Your task to perform on an android device: add a contact Image 0: 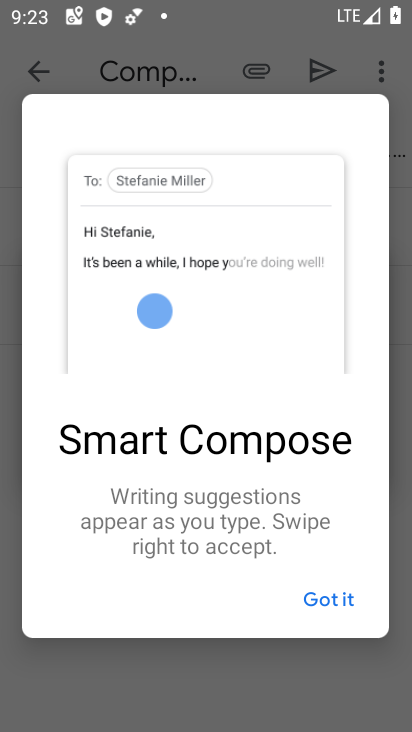
Step 0: press home button
Your task to perform on an android device: add a contact Image 1: 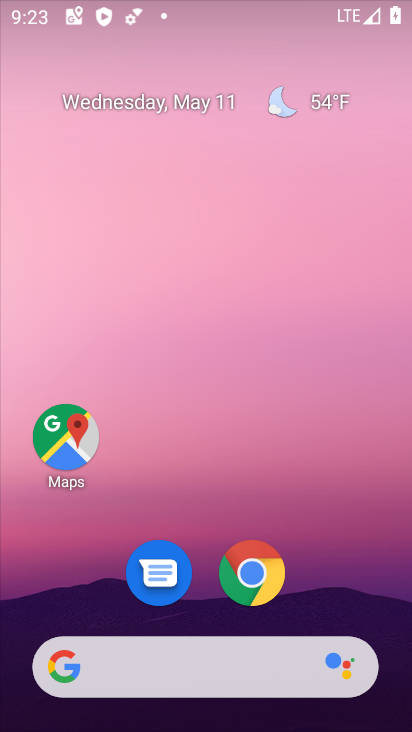
Step 1: drag from (254, 683) to (295, 73)
Your task to perform on an android device: add a contact Image 2: 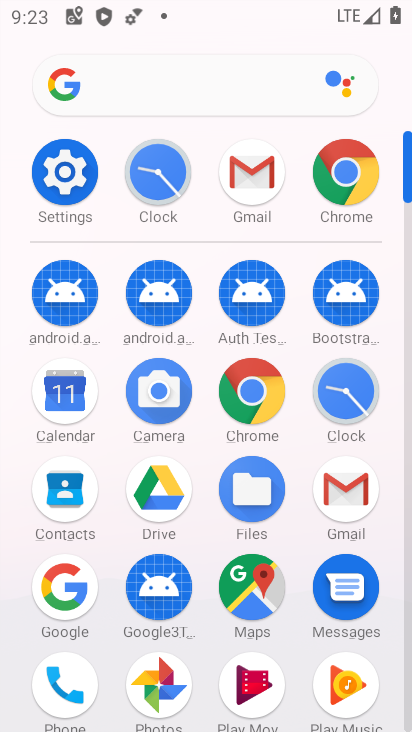
Step 2: click (88, 491)
Your task to perform on an android device: add a contact Image 3: 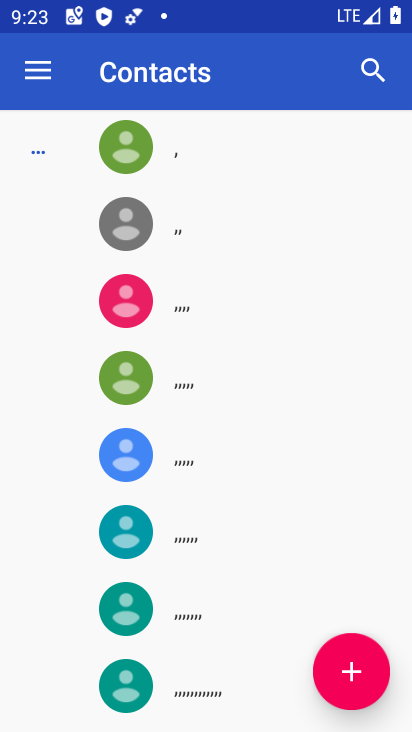
Step 3: click (335, 686)
Your task to perform on an android device: add a contact Image 4: 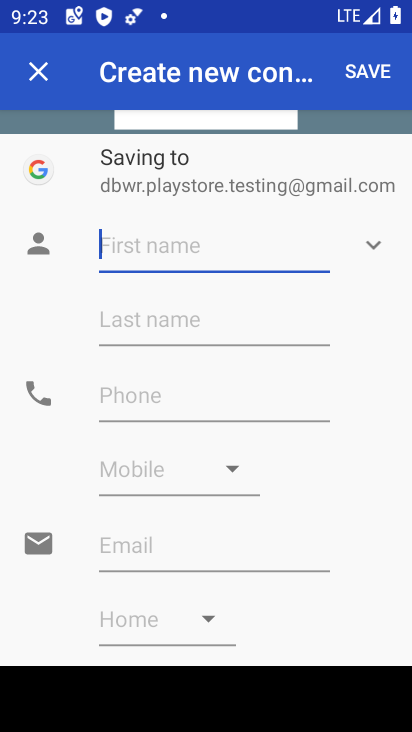
Step 4: type "jhgyujhnj"
Your task to perform on an android device: add a contact Image 5: 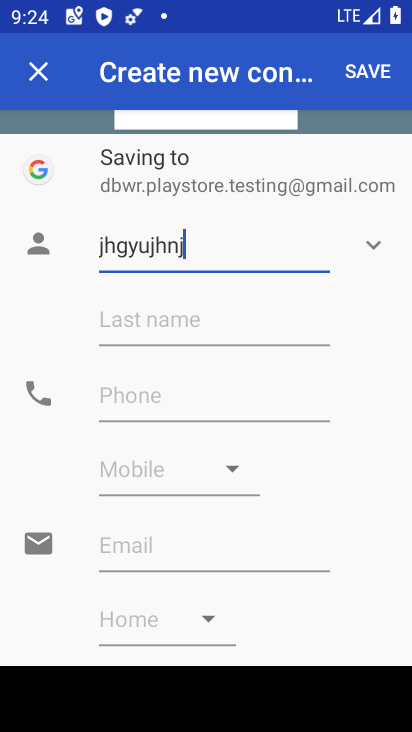
Step 5: click (192, 400)
Your task to perform on an android device: add a contact Image 6: 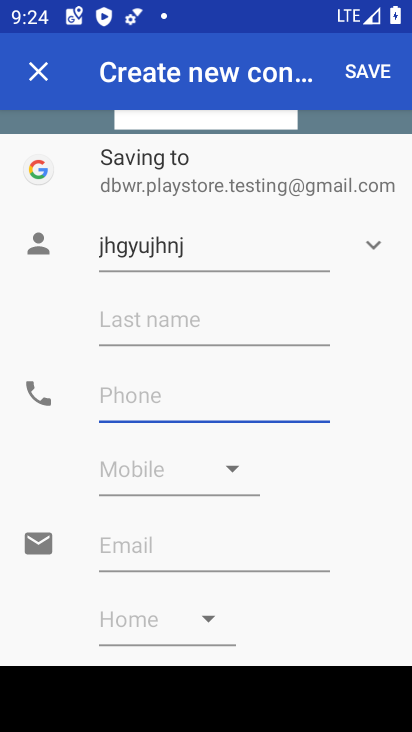
Step 6: type "98976789765"
Your task to perform on an android device: add a contact Image 7: 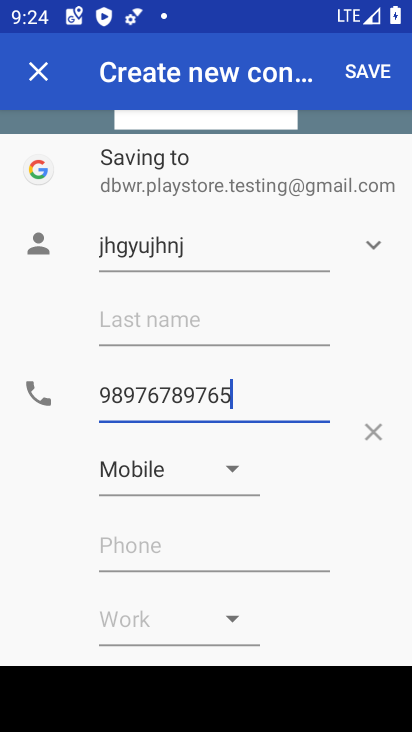
Step 7: click (380, 74)
Your task to perform on an android device: add a contact Image 8: 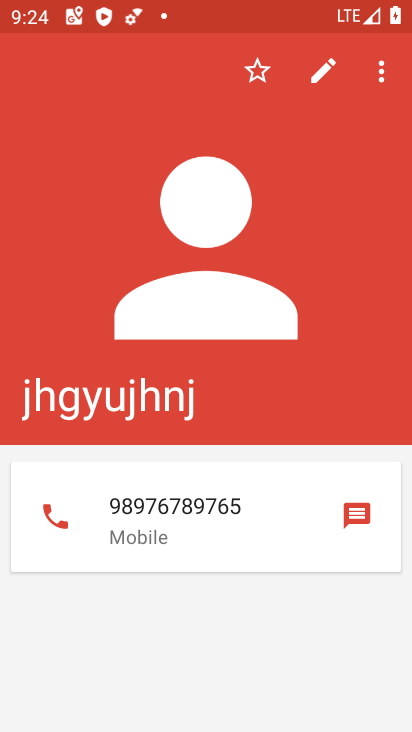
Step 8: task complete